Your task to perform on an android device: set the stopwatch Image 0: 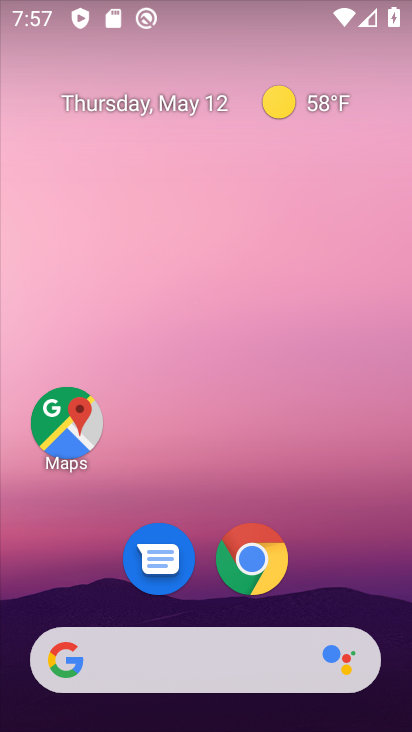
Step 0: drag from (315, 580) to (234, 20)
Your task to perform on an android device: set the stopwatch Image 1: 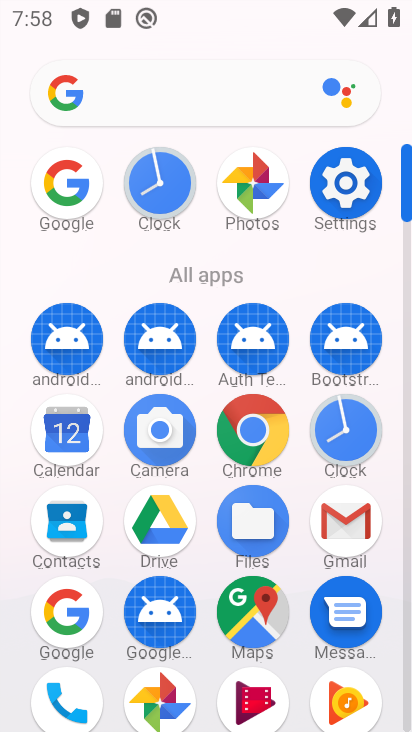
Step 1: click (162, 185)
Your task to perform on an android device: set the stopwatch Image 2: 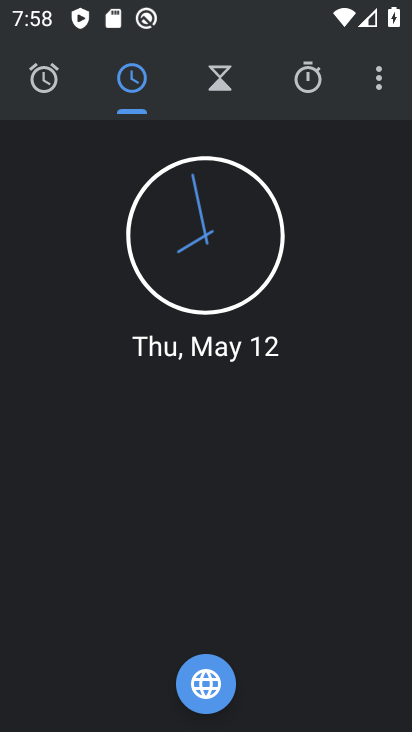
Step 2: click (314, 80)
Your task to perform on an android device: set the stopwatch Image 3: 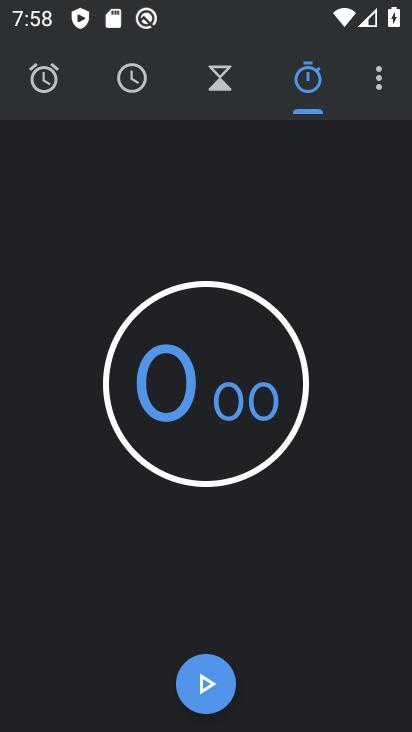
Step 3: click (204, 688)
Your task to perform on an android device: set the stopwatch Image 4: 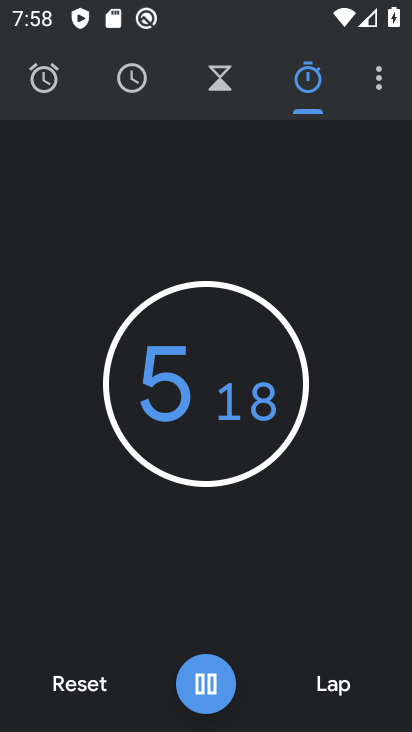
Step 4: click (204, 688)
Your task to perform on an android device: set the stopwatch Image 5: 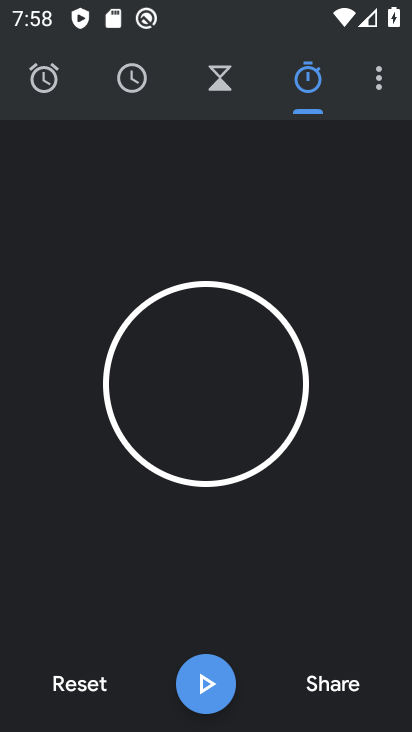
Step 5: task complete